Your task to perform on an android device: empty trash in the gmail app Image 0: 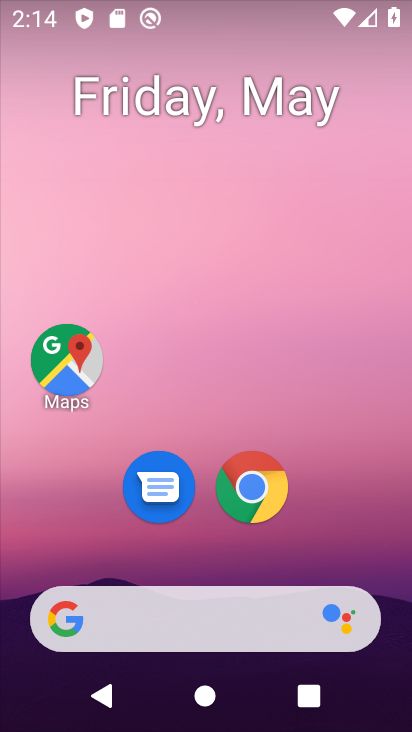
Step 0: drag from (180, 544) to (223, 12)
Your task to perform on an android device: empty trash in the gmail app Image 1: 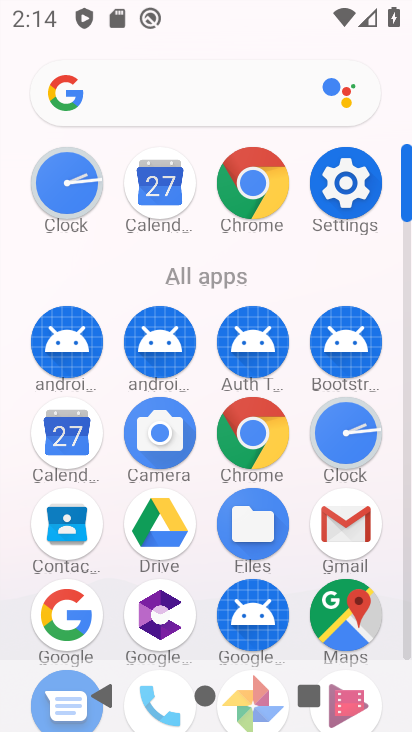
Step 1: click (330, 513)
Your task to perform on an android device: empty trash in the gmail app Image 2: 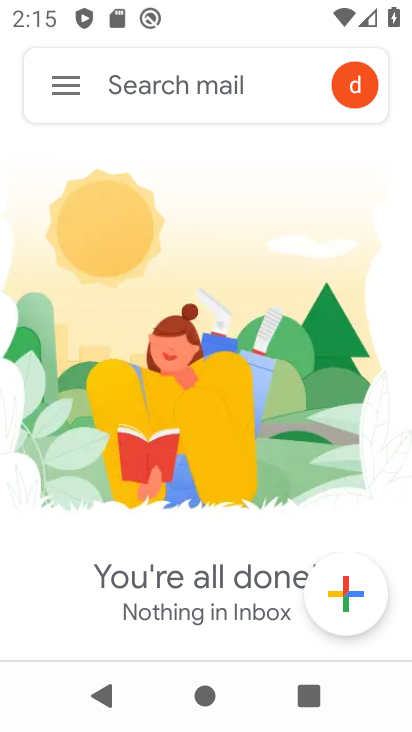
Step 2: click (54, 91)
Your task to perform on an android device: empty trash in the gmail app Image 3: 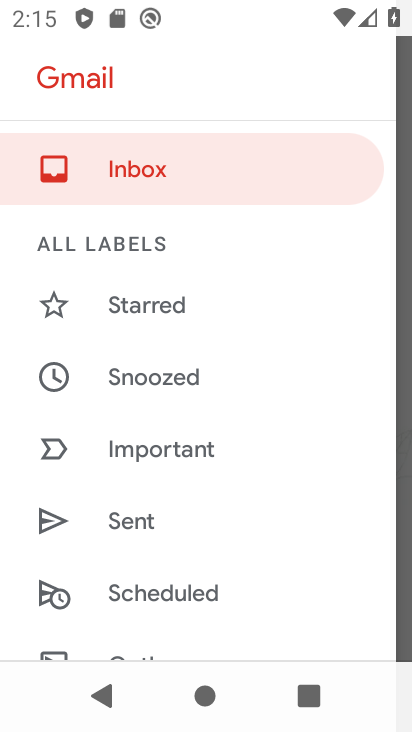
Step 3: drag from (152, 570) to (215, 119)
Your task to perform on an android device: empty trash in the gmail app Image 4: 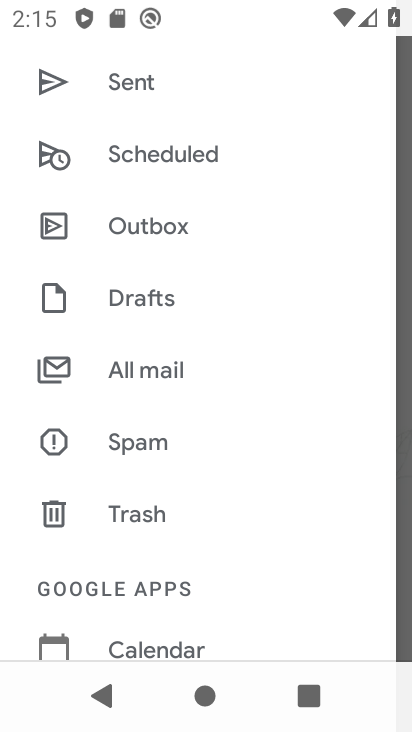
Step 4: click (178, 503)
Your task to perform on an android device: empty trash in the gmail app Image 5: 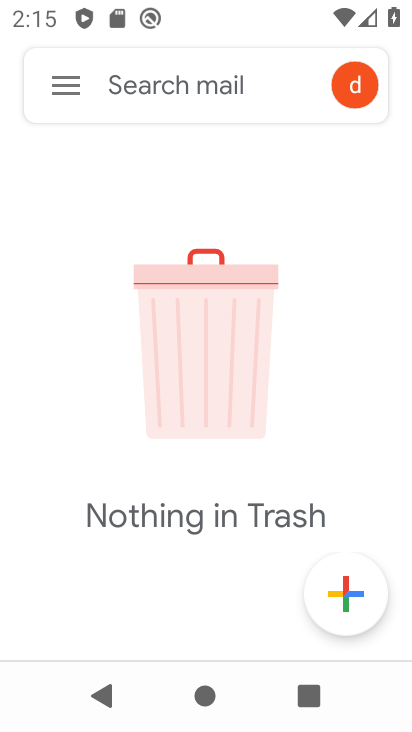
Step 5: task complete